Your task to perform on an android device: turn smart compose on in the gmail app Image 0: 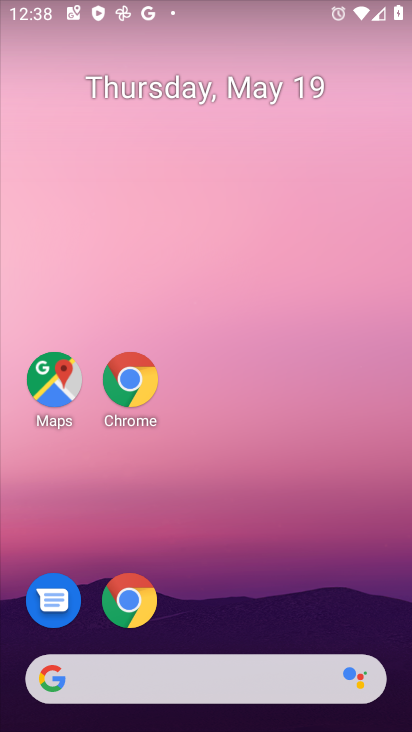
Step 0: drag from (272, 624) to (200, 216)
Your task to perform on an android device: turn smart compose on in the gmail app Image 1: 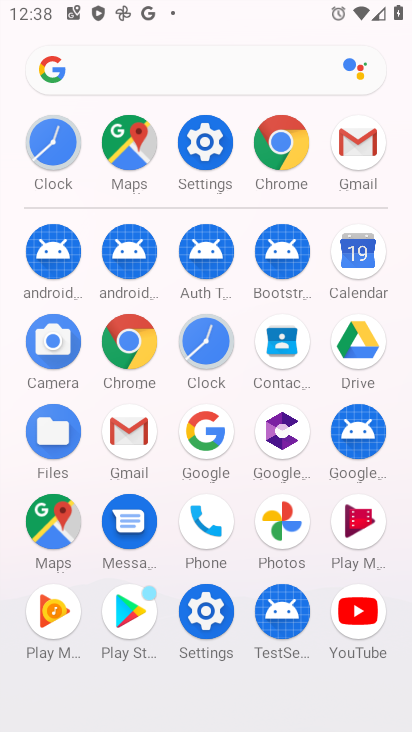
Step 1: click (106, 428)
Your task to perform on an android device: turn smart compose on in the gmail app Image 2: 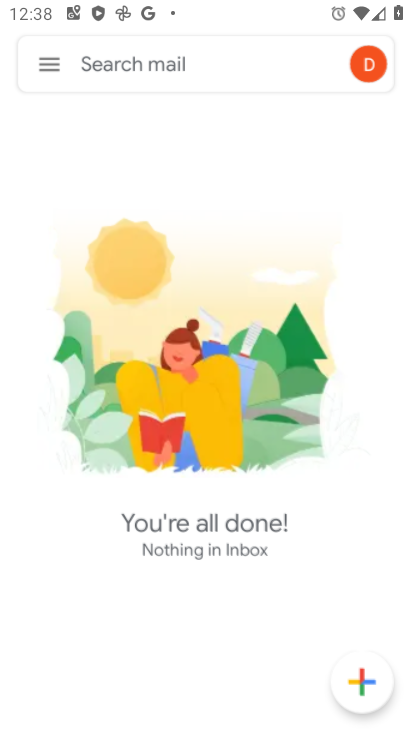
Step 2: click (119, 424)
Your task to perform on an android device: turn smart compose on in the gmail app Image 3: 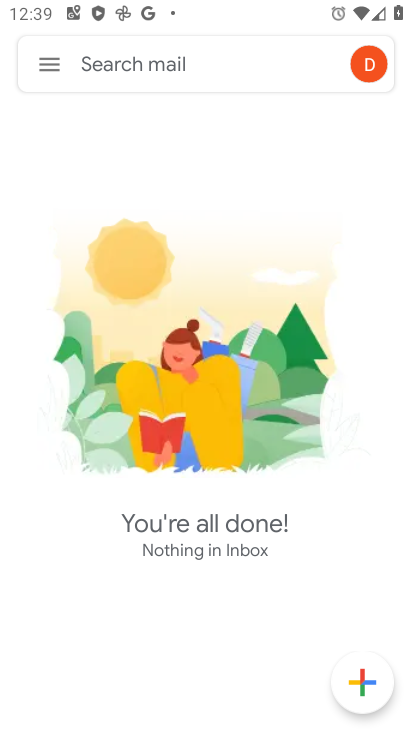
Step 3: click (41, 74)
Your task to perform on an android device: turn smart compose on in the gmail app Image 4: 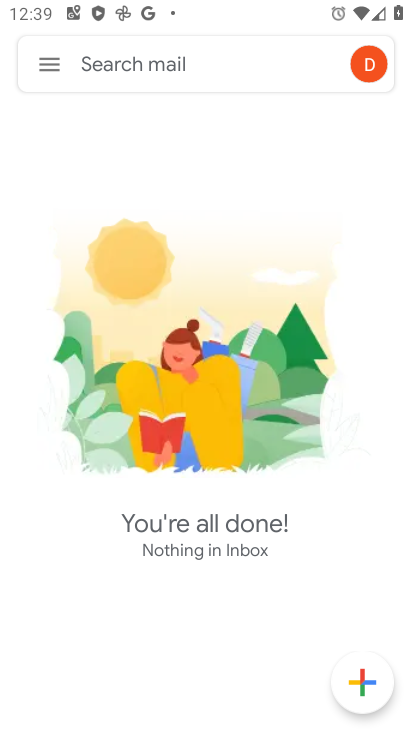
Step 4: click (57, 56)
Your task to perform on an android device: turn smart compose on in the gmail app Image 5: 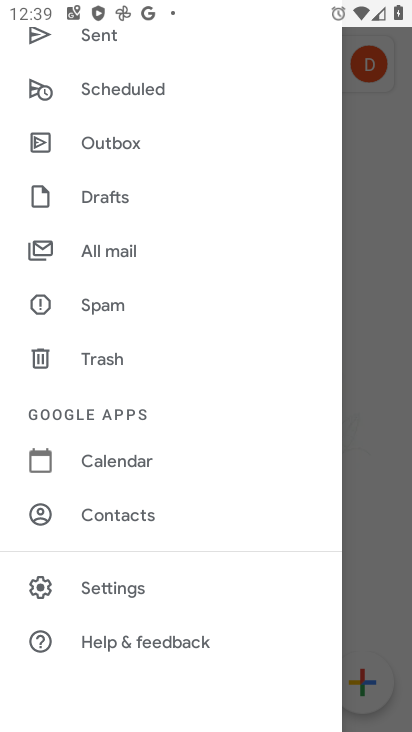
Step 5: click (118, 583)
Your task to perform on an android device: turn smart compose on in the gmail app Image 6: 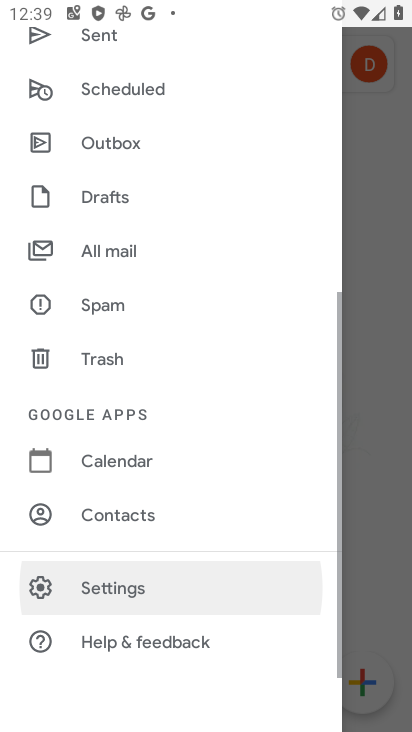
Step 6: click (117, 584)
Your task to perform on an android device: turn smart compose on in the gmail app Image 7: 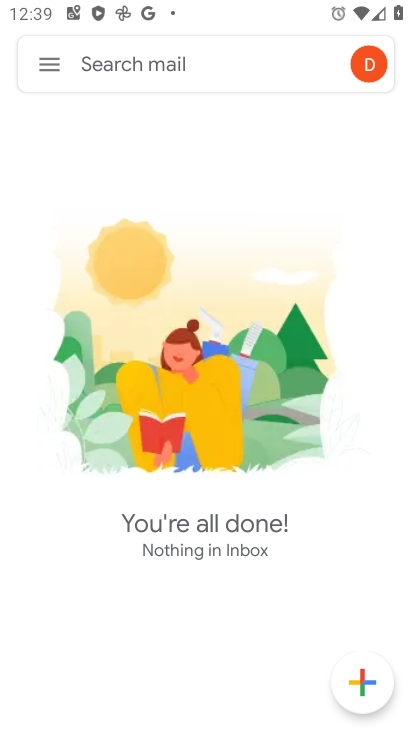
Step 7: click (117, 584)
Your task to perform on an android device: turn smart compose on in the gmail app Image 8: 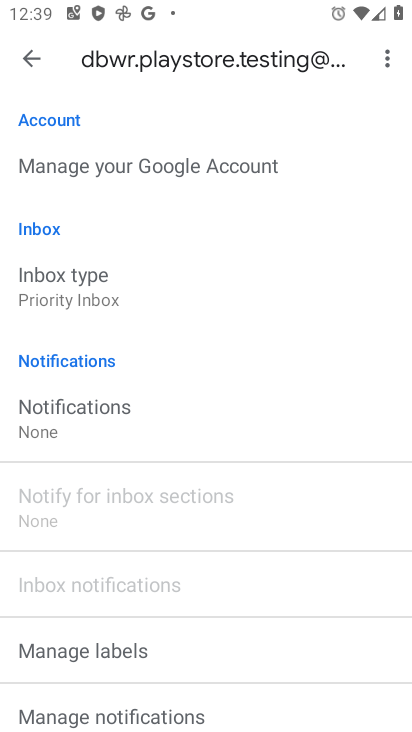
Step 8: task complete